Your task to perform on an android device: Go to Reddit.com Image 0: 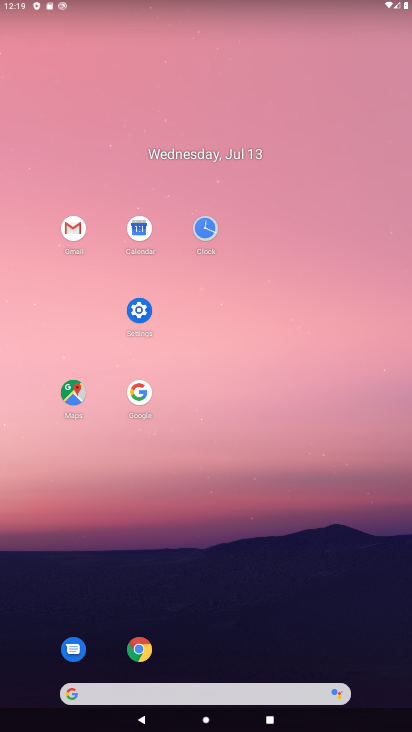
Step 0: click (143, 655)
Your task to perform on an android device: Go to Reddit.com Image 1: 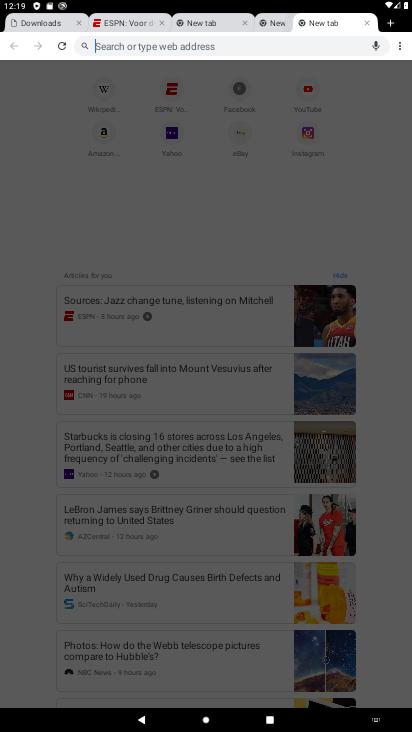
Step 1: type "reddit"
Your task to perform on an android device: Go to Reddit.com Image 2: 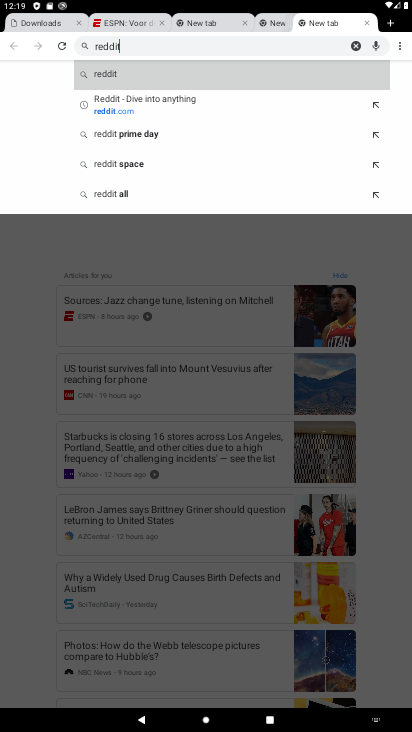
Step 2: click (129, 76)
Your task to perform on an android device: Go to Reddit.com Image 3: 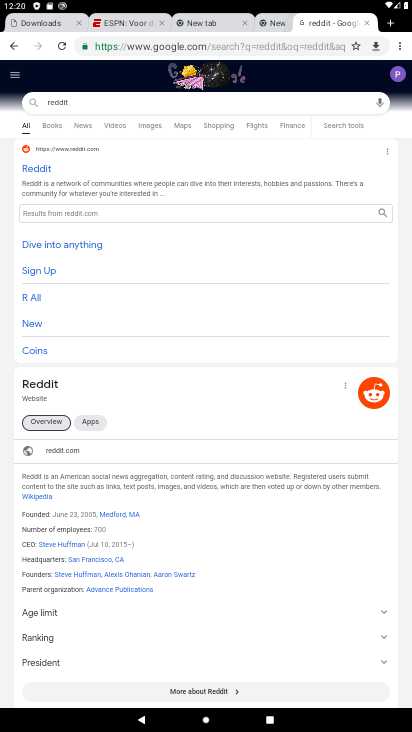
Step 3: click (34, 168)
Your task to perform on an android device: Go to Reddit.com Image 4: 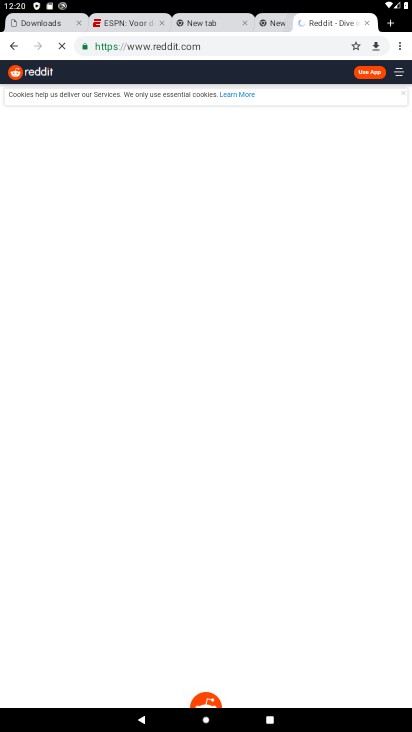
Step 4: task complete